Your task to perform on an android device: delete the emails in spam in the gmail app Image 0: 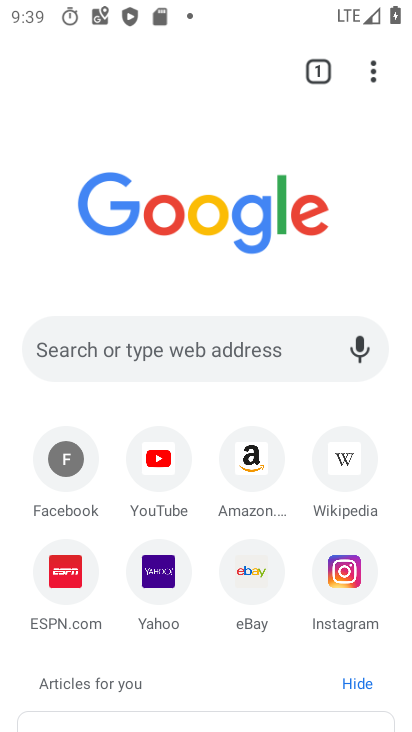
Step 0: press home button
Your task to perform on an android device: delete the emails in spam in the gmail app Image 1: 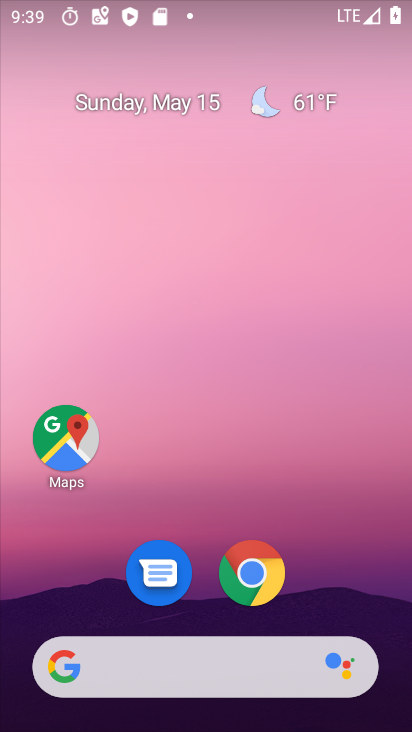
Step 1: drag from (55, 420) to (172, 150)
Your task to perform on an android device: delete the emails in spam in the gmail app Image 2: 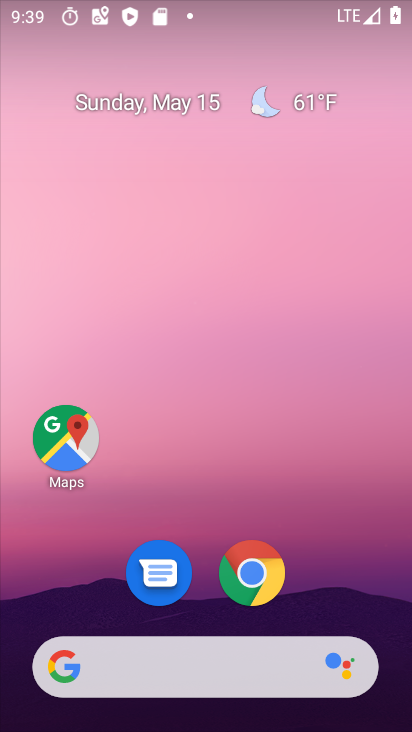
Step 2: drag from (6, 564) to (343, 114)
Your task to perform on an android device: delete the emails in spam in the gmail app Image 3: 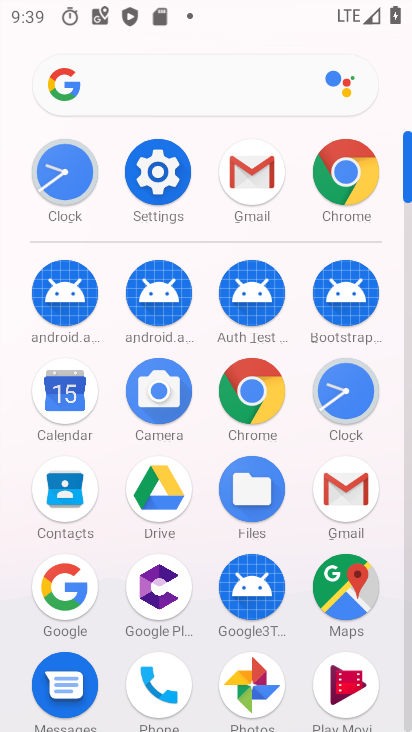
Step 3: click (274, 175)
Your task to perform on an android device: delete the emails in spam in the gmail app Image 4: 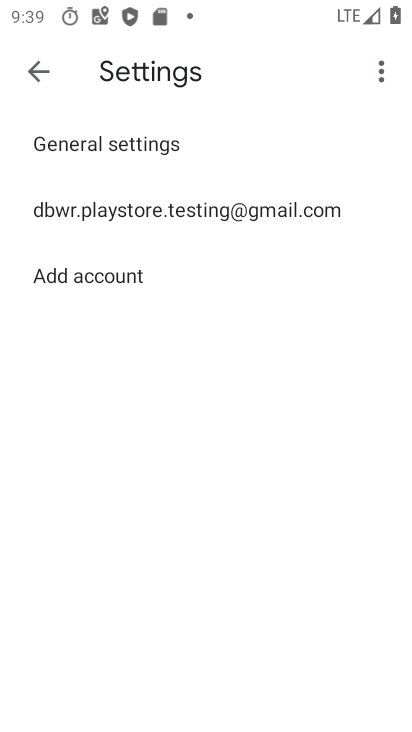
Step 4: click (103, 223)
Your task to perform on an android device: delete the emails in spam in the gmail app Image 5: 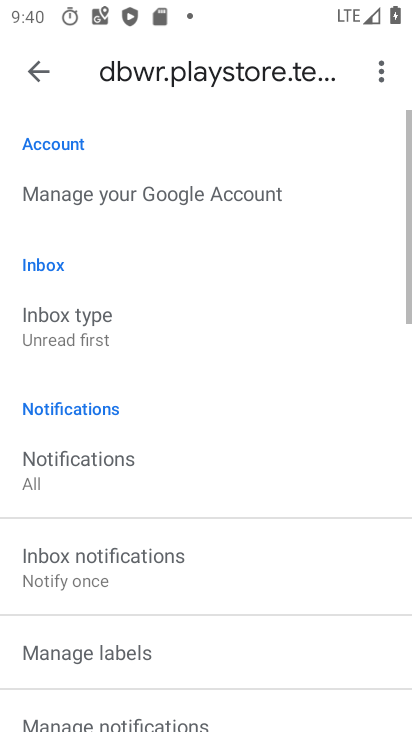
Step 5: click (37, 78)
Your task to perform on an android device: delete the emails in spam in the gmail app Image 6: 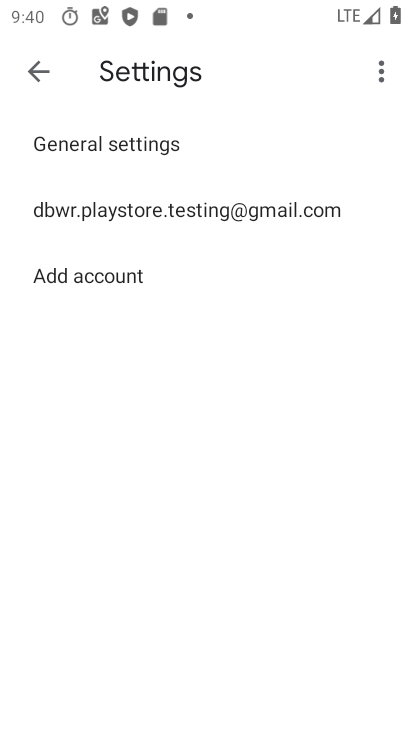
Step 6: click (37, 78)
Your task to perform on an android device: delete the emails in spam in the gmail app Image 7: 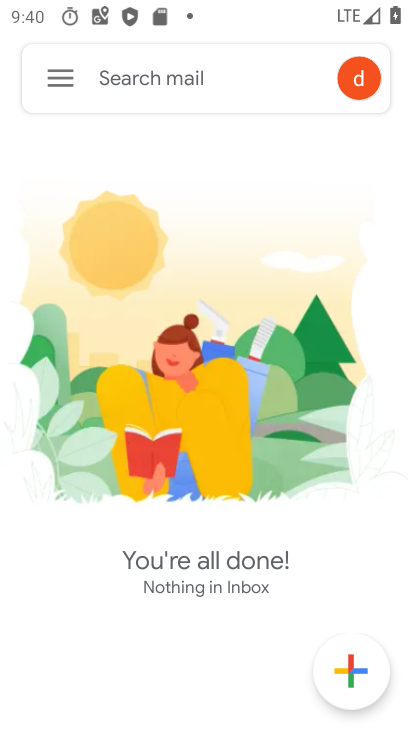
Step 7: click (42, 76)
Your task to perform on an android device: delete the emails in spam in the gmail app Image 8: 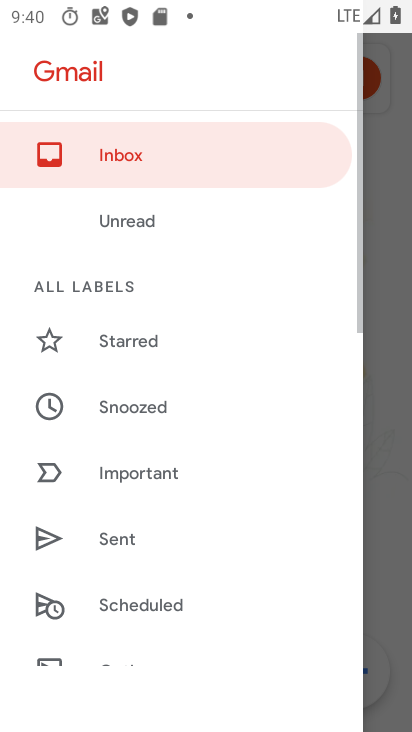
Step 8: drag from (94, 635) to (251, 99)
Your task to perform on an android device: delete the emails in spam in the gmail app Image 9: 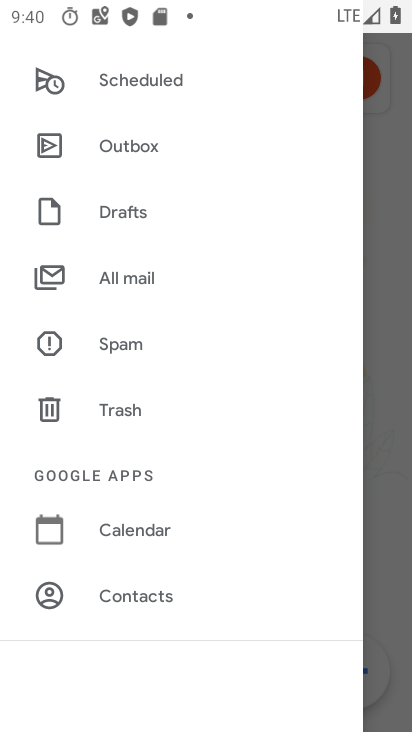
Step 9: click (140, 329)
Your task to perform on an android device: delete the emails in spam in the gmail app Image 10: 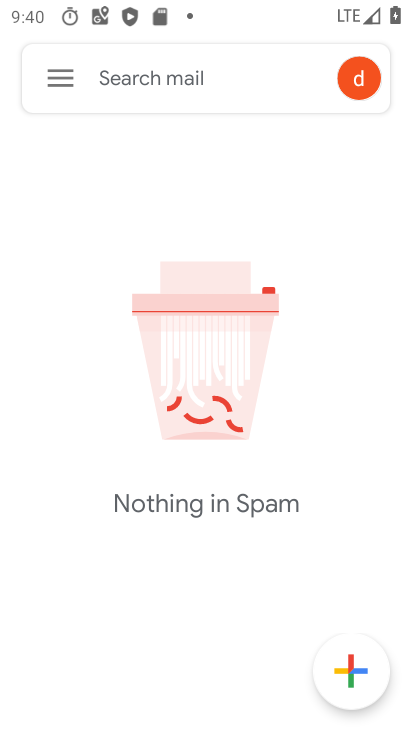
Step 10: task complete